Your task to perform on an android device: toggle wifi Image 0: 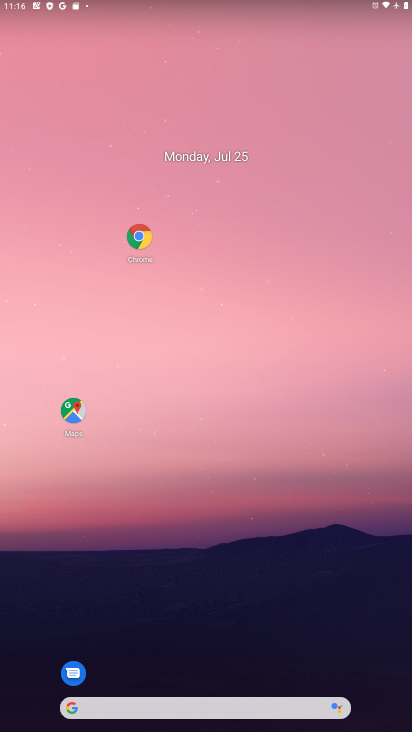
Step 0: drag from (277, 648) to (307, 94)
Your task to perform on an android device: toggle wifi Image 1: 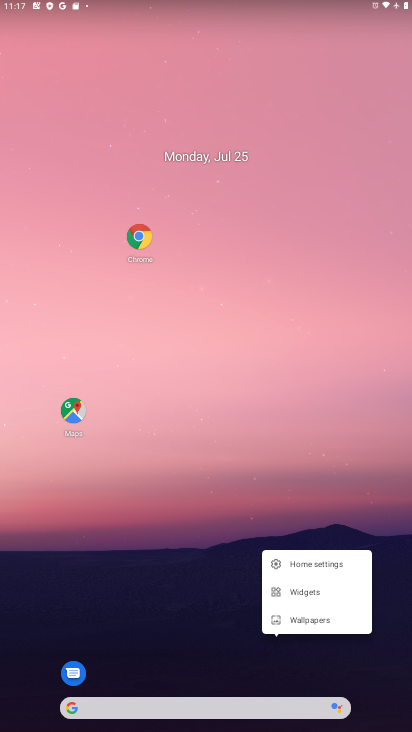
Step 1: click (237, 347)
Your task to perform on an android device: toggle wifi Image 2: 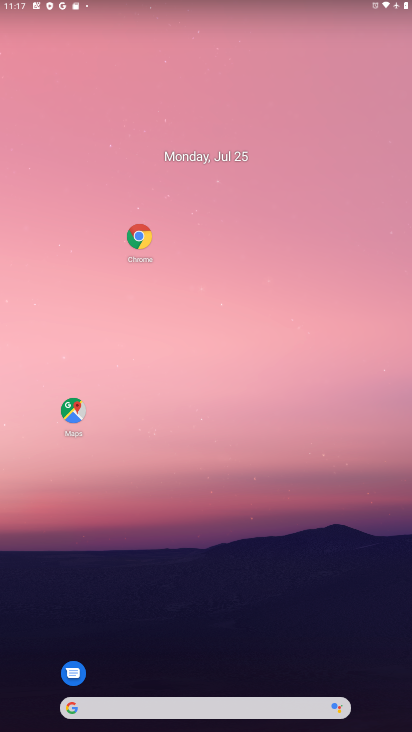
Step 2: drag from (188, 652) to (273, 212)
Your task to perform on an android device: toggle wifi Image 3: 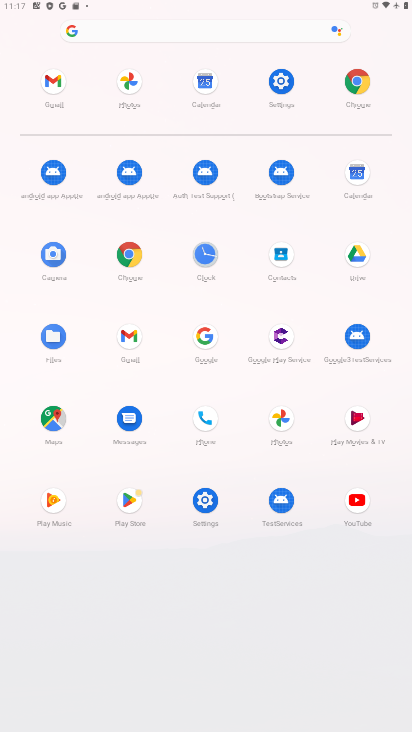
Step 3: click (280, 102)
Your task to perform on an android device: toggle wifi Image 4: 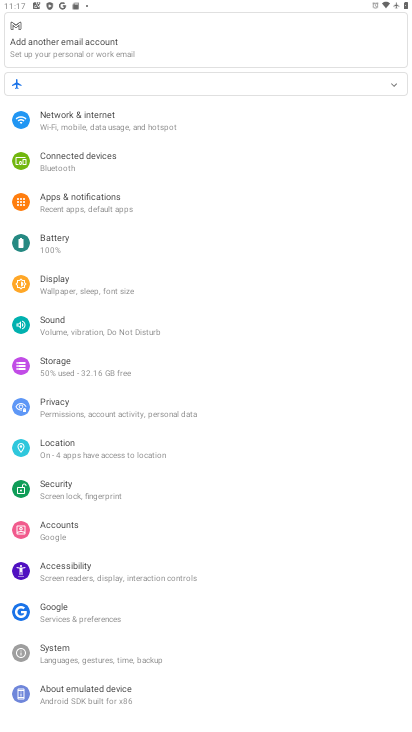
Step 4: click (167, 120)
Your task to perform on an android device: toggle wifi Image 5: 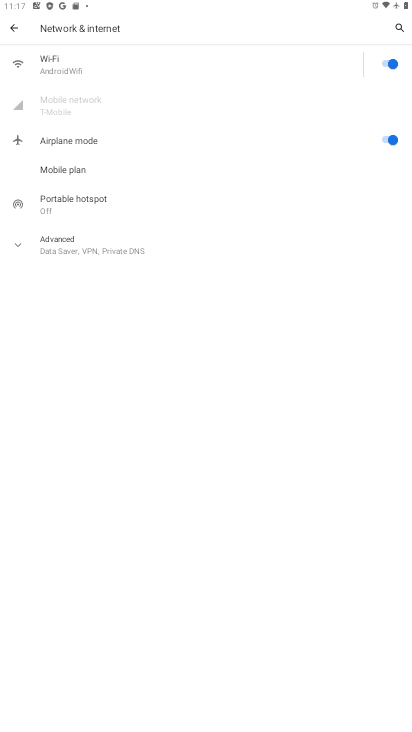
Step 5: click (237, 77)
Your task to perform on an android device: toggle wifi Image 6: 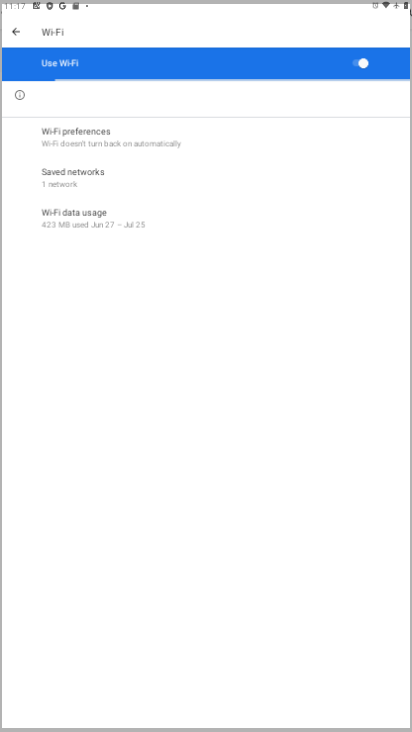
Step 6: task complete